Your task to perform on an android device: Open my contact list Image 0: 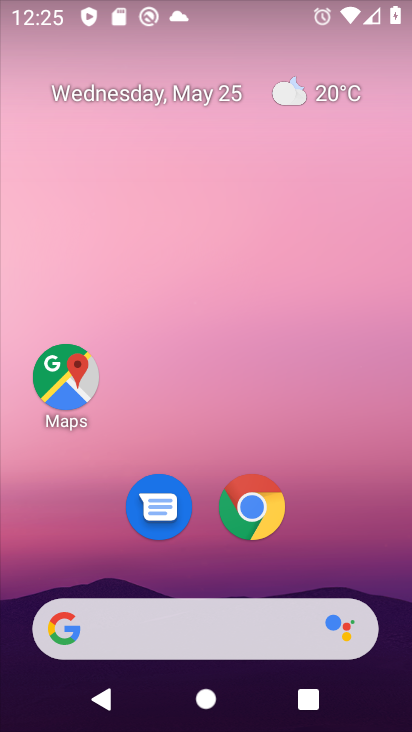
Step 0: drag from (327, 551) to (334, 200)
Your task to perform on an android device: Open my contact list Image 1: 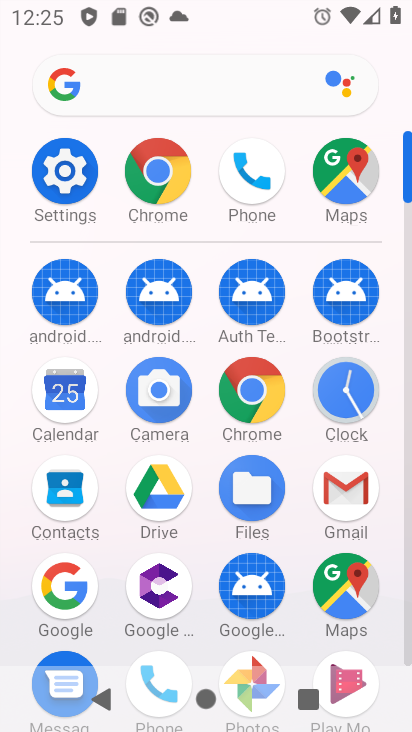
Step 1: drag from (196, 574) to (201, 209)
Your task to perform on an android device: Open my contact list Image 2: 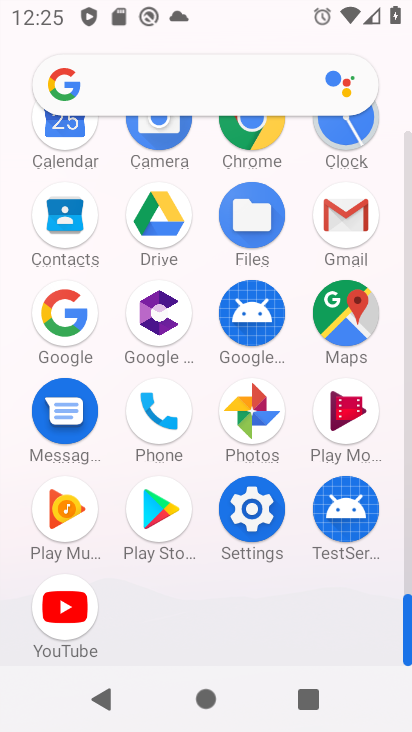
Step 2: click (69, 241)
Your task to perform on an android device: Open my contact list Image 3: 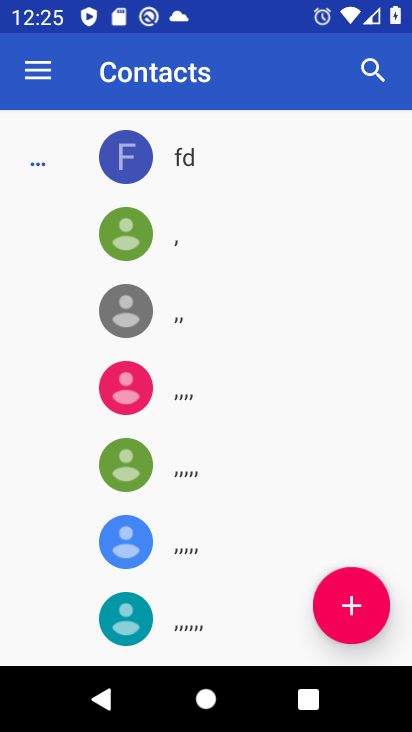
Step 3: task complete